Your task to perform on an android device: Add "macbook pro 13 inch" to the cart on ebay.com Image 0: 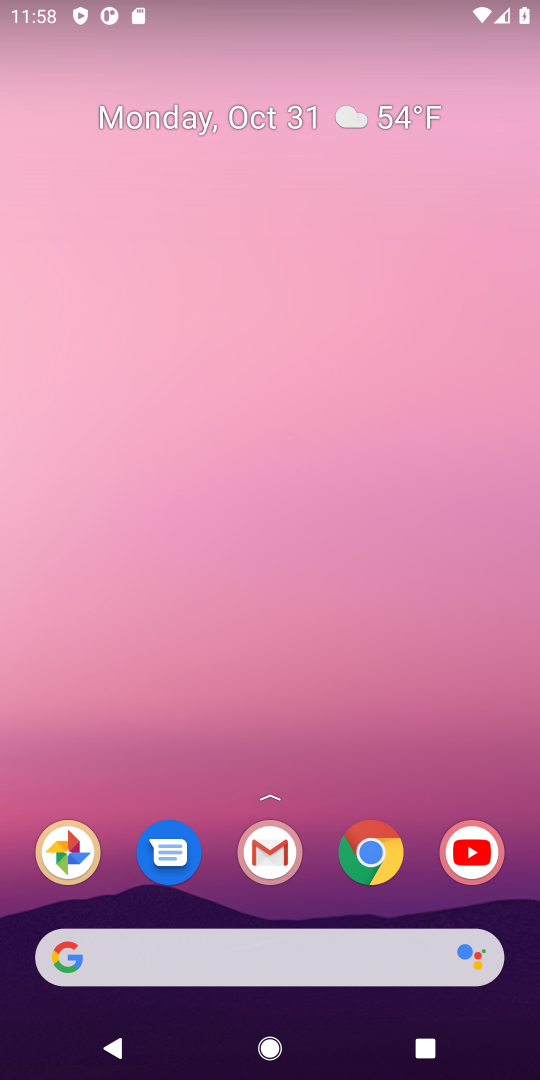
Step 0: click (371, 859)
Your task to perform on an android device: Add "macbook pro 13 inch" to the cart on ebay.com Image 1: 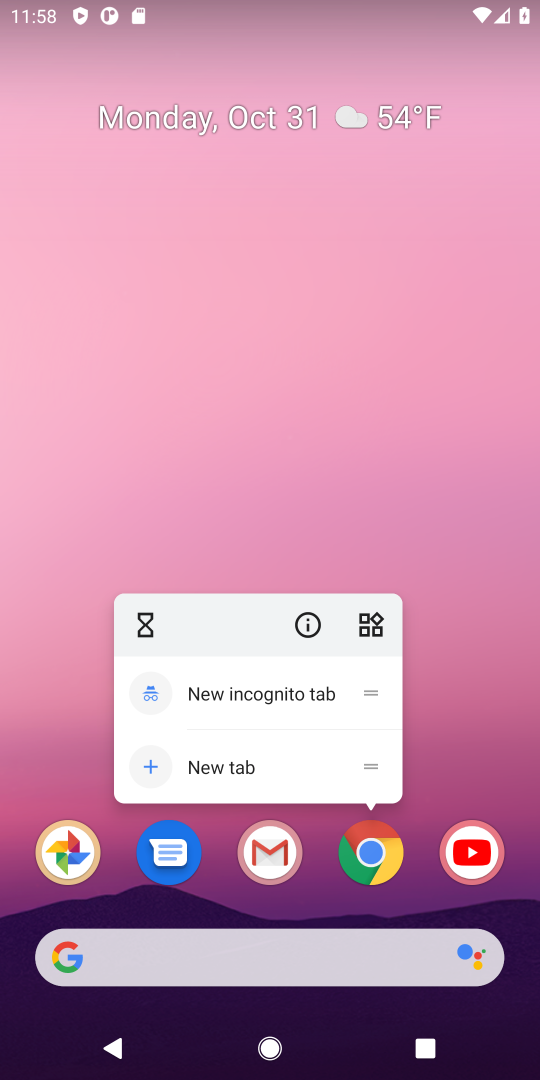
Step 1: click (383, 865)
Your task to perform on an android device: Add "macbook pro 13 inch" to the cart on ebay.com Image 2: 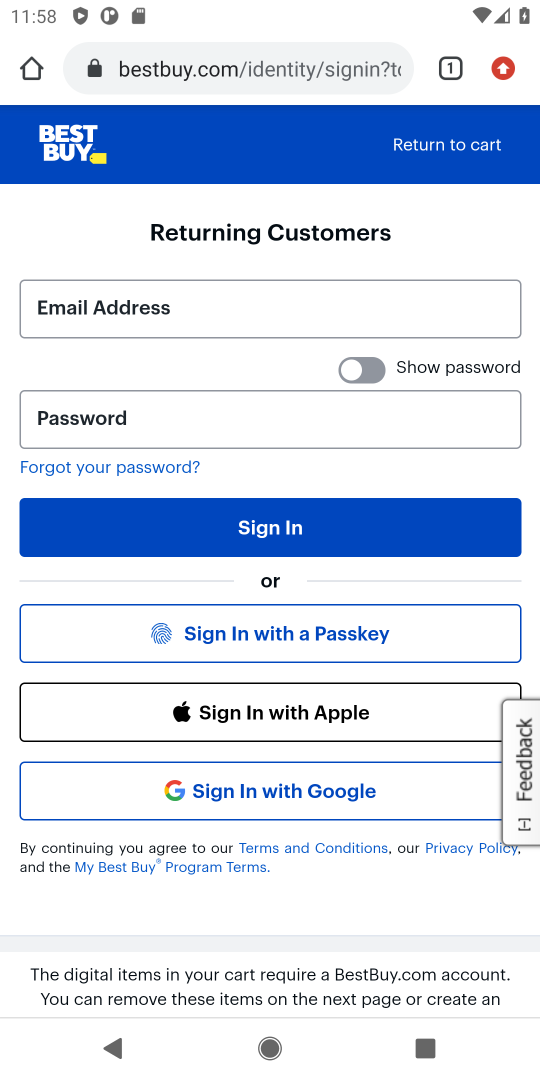
Step 2: click (251, 69)
Your task to perform on an android device: Add "macbook pro 13 inch" to the cart on ebay.com Image 3: 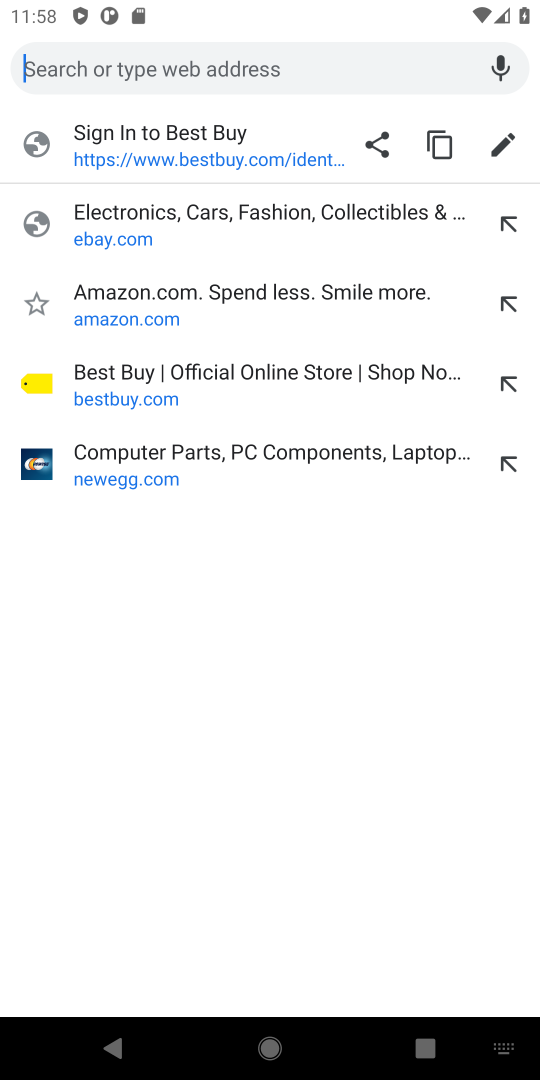
Step 3: type "ebay.com"
Your task to perform on an android device: Add "macbook pro 13 inch" to the cart on ebay.com Image 4: 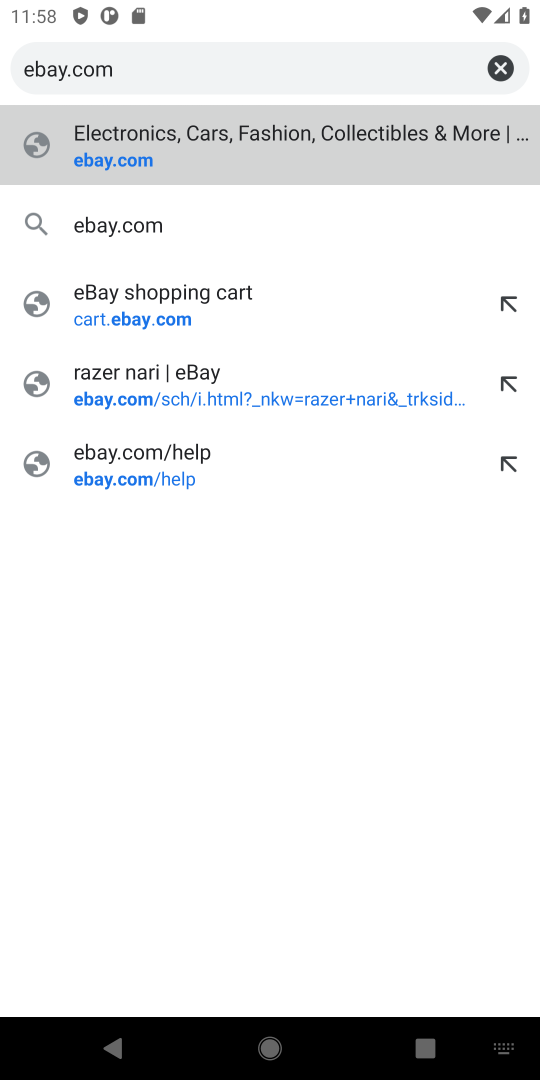
Step 4: type ""
Your task to perform on an android device: Add "macbook pro 13 inch" to the cart on ebay.com Image 5: 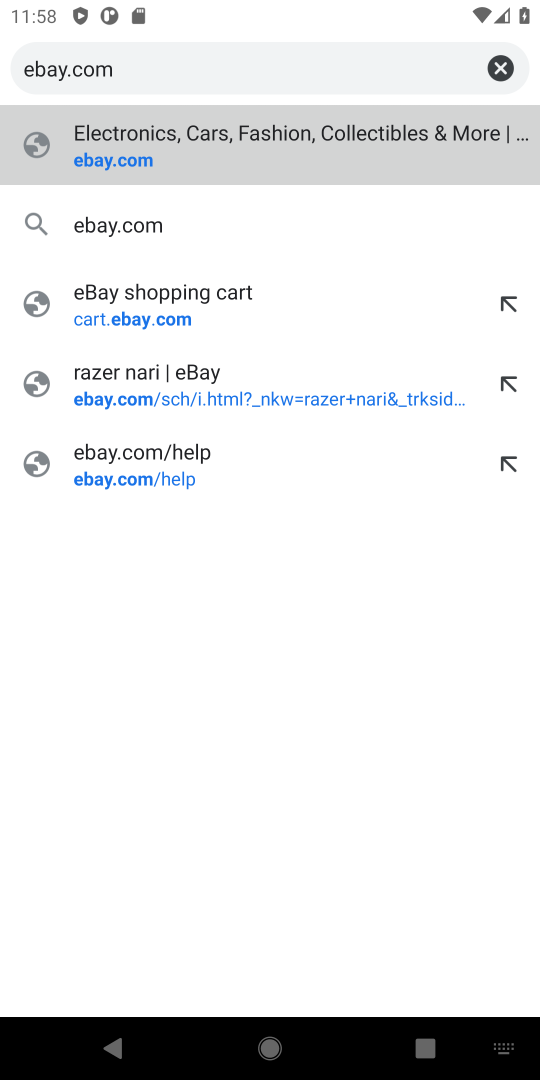
Step 5: press enter
Your task to perform on an android device: Add "macbook pro 13 inch" to the cart on ebay.com Image 6: 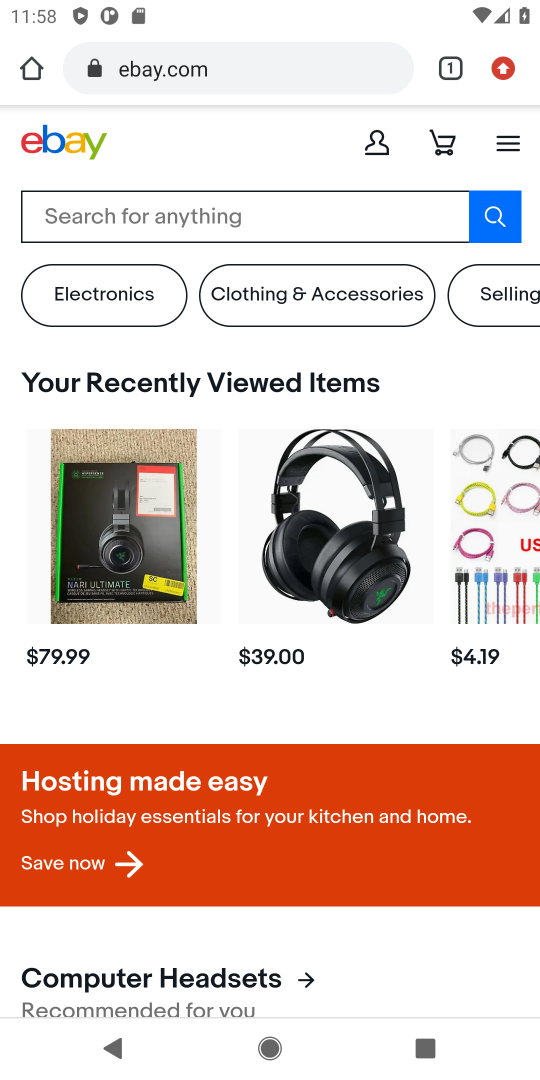
Step 6: drag from (326, 912) to (288, 693)
Your task to perform on an android device: Add "macbook pro 13 inch" to the cart on ebay.com Image 7: 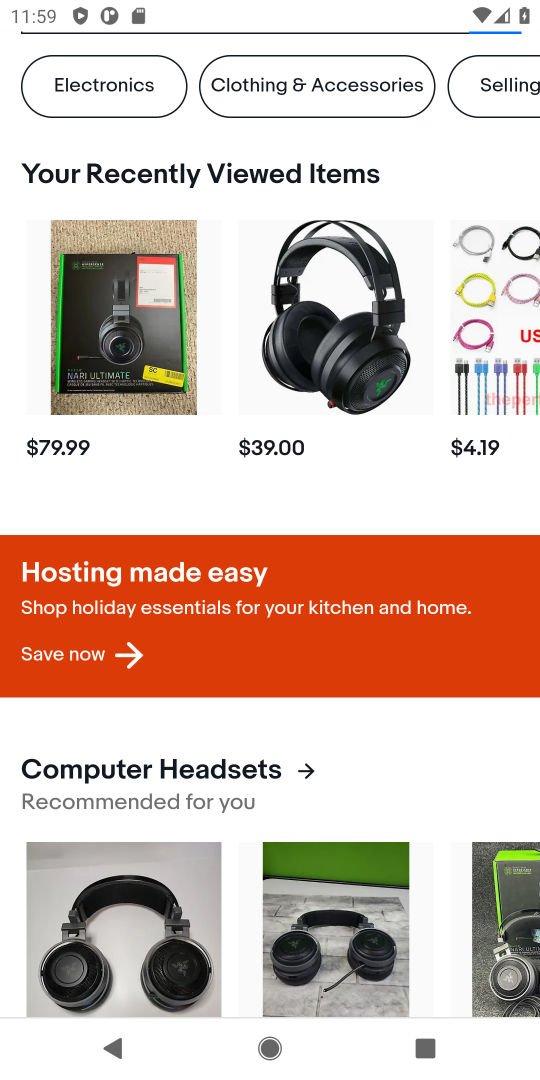
Step 7: drag from (346, 506) to (346, 696)
Your task to perform on an android device: Add "macbook pro 13 inch" to the cart on ebay.com Image 8: 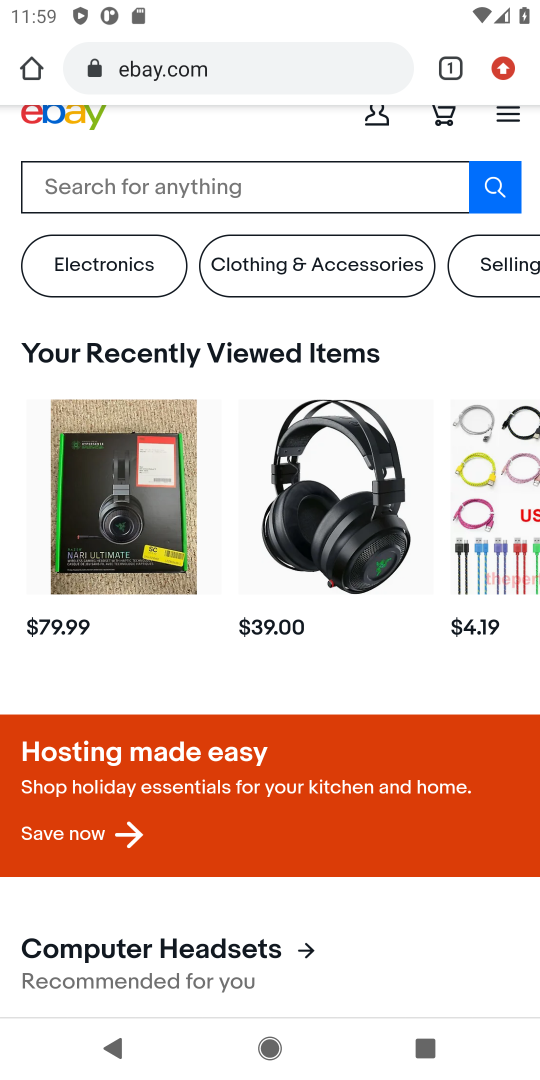
Step 8: click (236, 188)
Your task to perform on an android device: Add "macbook pro 13 inch" to the cart on ebay.com Image 9: 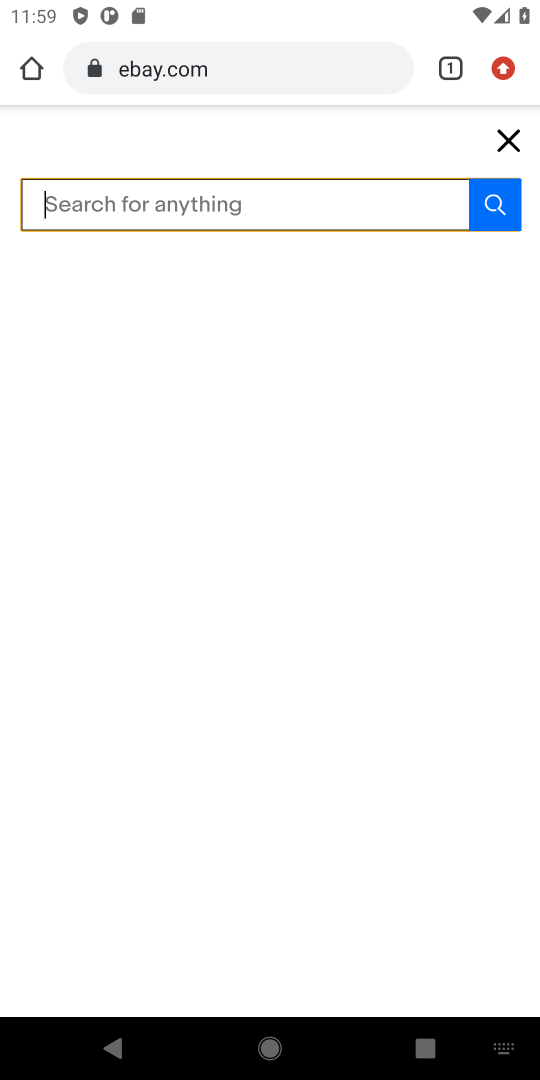
Step 9: type "macbook pro 13 inch"
Your task to perform on an android device: Add "macbook pro 13 inch" to the cart on ebay.com Image 10: 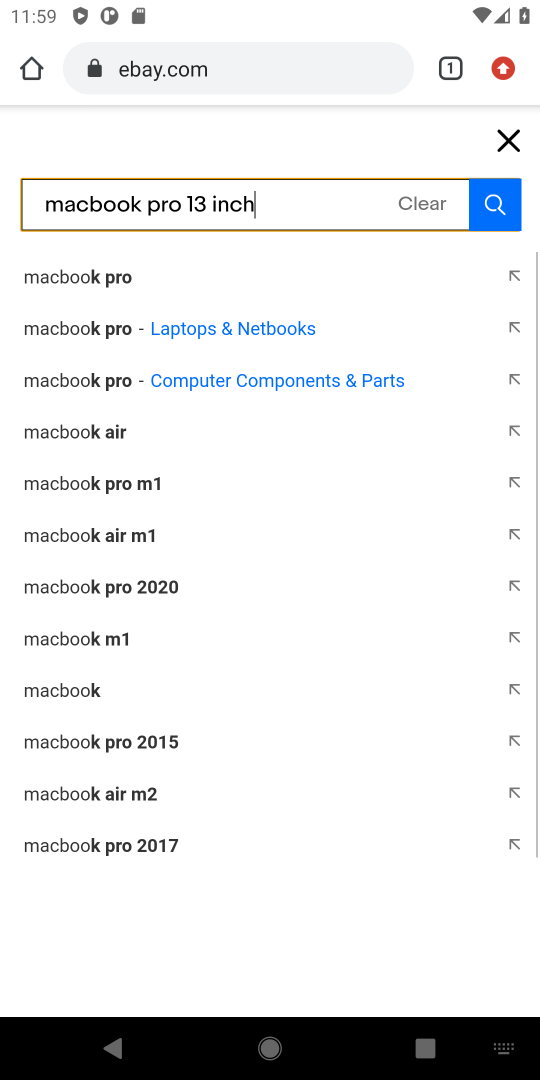
Step 10: type ""
Your task to perform on an android device: Add "macbook pro 13 inch" to the cart on ebay.com Image 11: 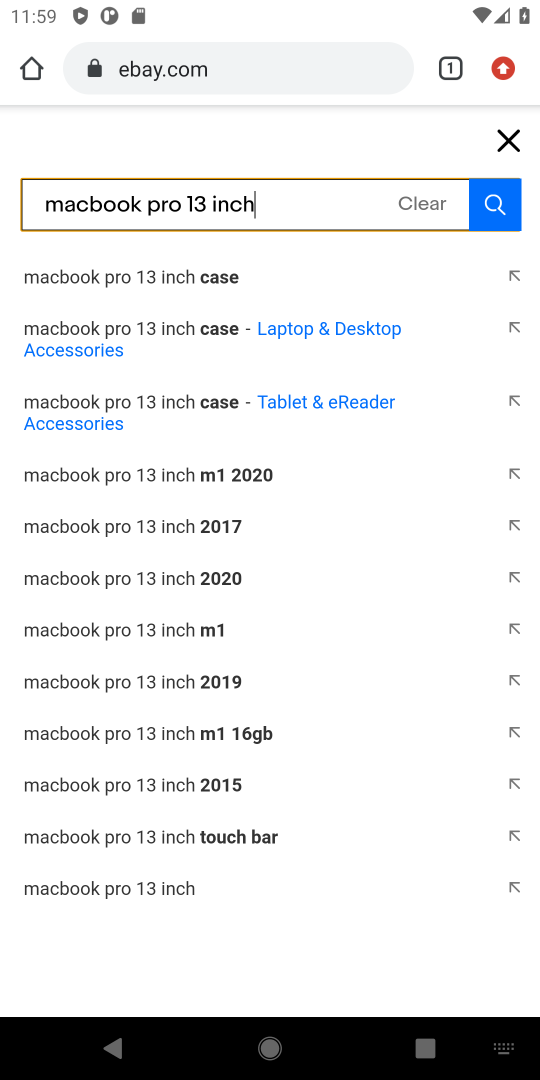
Step 11: press enter
Your task to perform on an android device: Add "macbook pro 13 inch" to the cart on ebay.com Image 12: 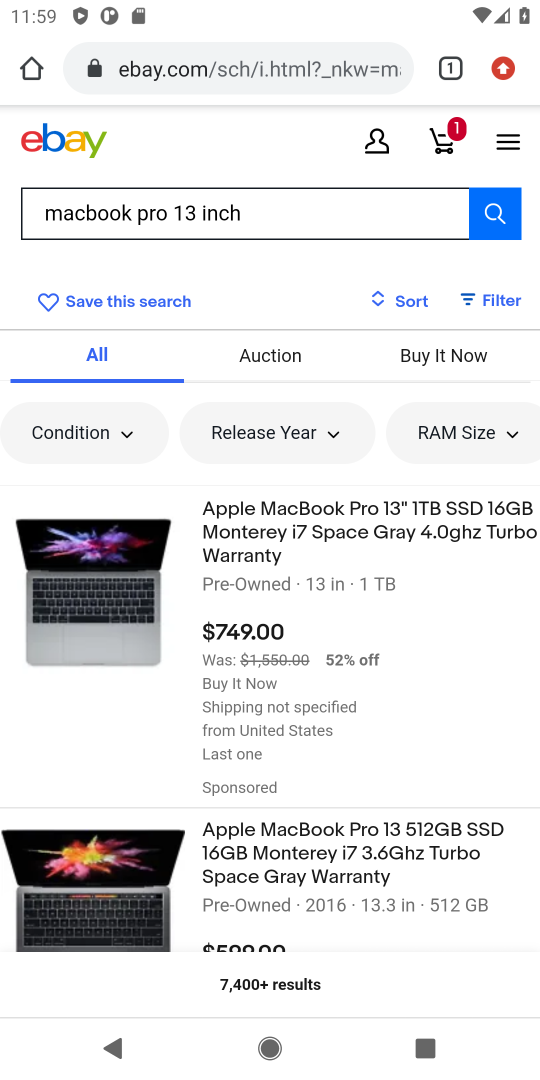
Step 12: click (317, 543)
Your task to perform on an android device: Add "macbook pro 13 inch" to the cart on ebay.com Image 13: 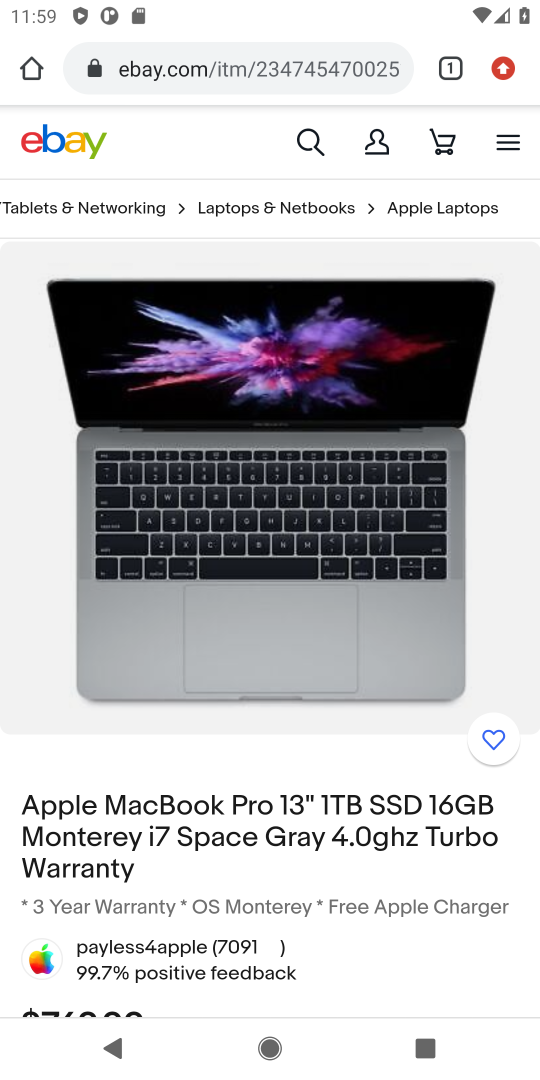
Step 13: drag from (343, 798) to (279, 277)
Your task to perform on an android device: Add "macbook pro 13 inch" to the cart on ebay.com Image 14: 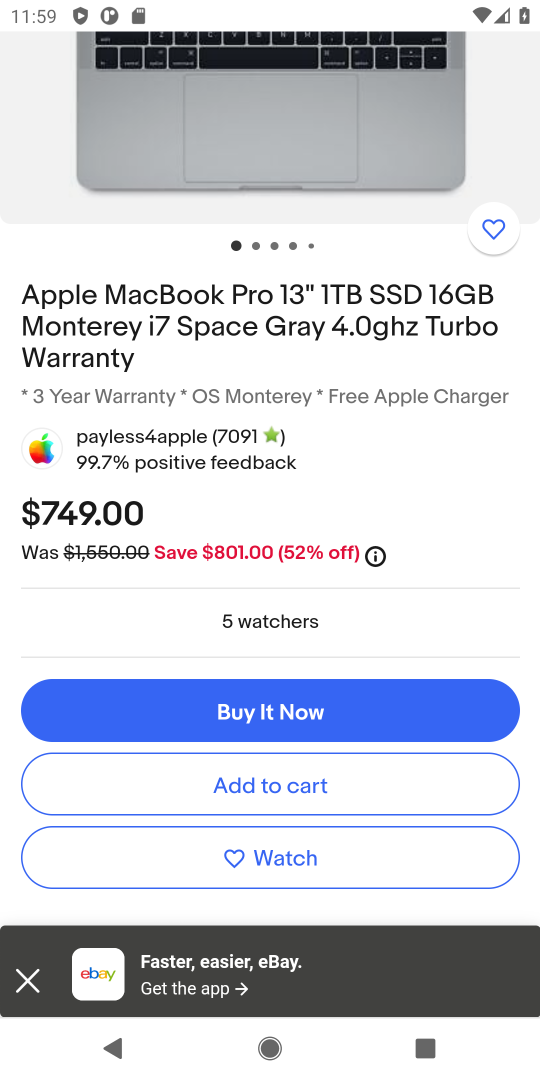
Step 14: click (319, 786)
Your task to perform on an android device: Add "macbook pro 13 inch" to the cart on ebay.com Image 15: 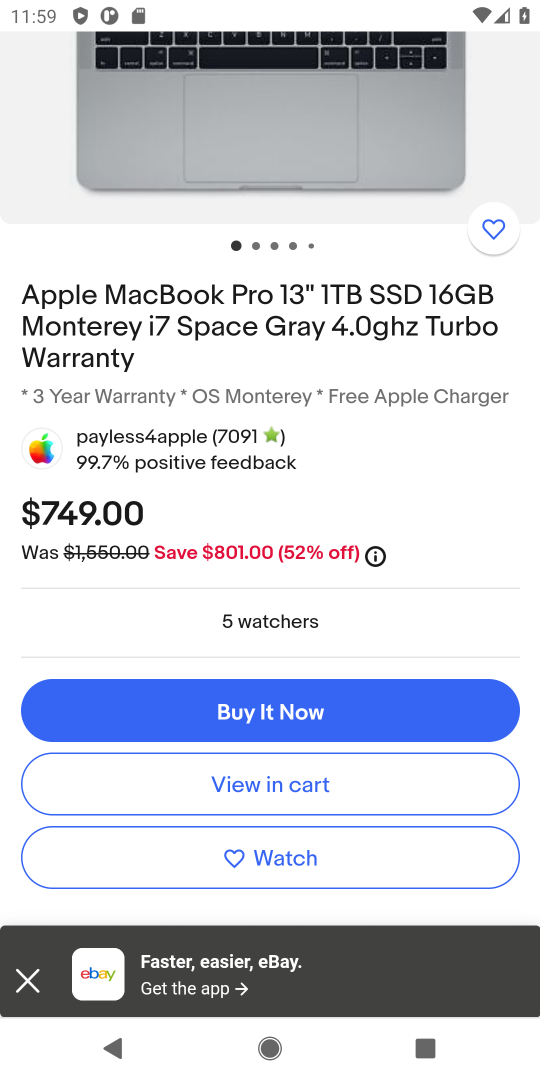
Step 15: click (290, 790)
Your task to perform on an android device: Add "macbook pro 13 inch" to the cart on ebay.com Image 16: 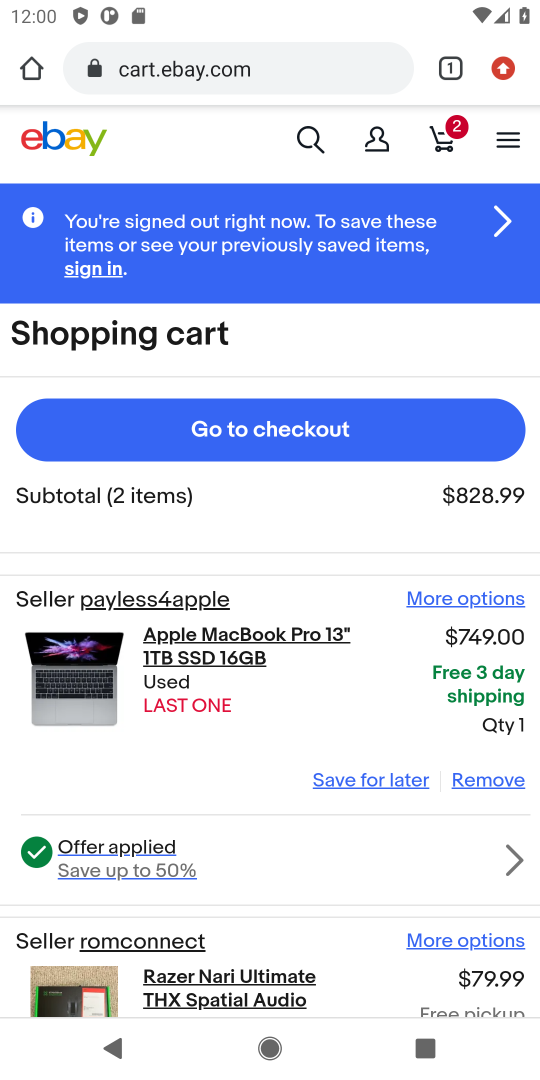
Step 16: task complete